Your task to perform on an android device: change text size in settings app Image 0: 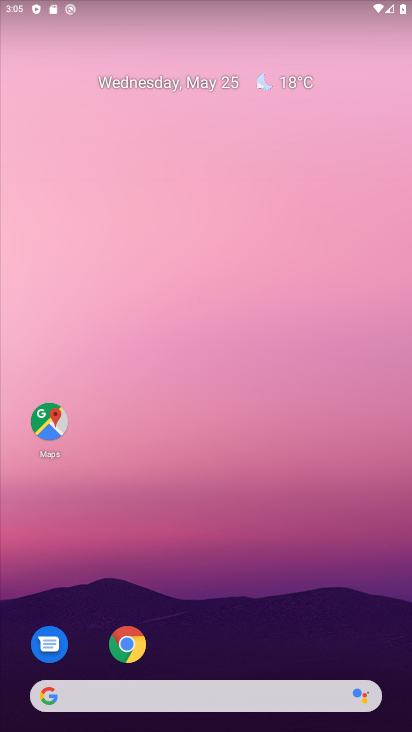
Step 0: drag from (271, 610) to (259, 113)
Your task to perform on an android device: change text size in settings app Image 1: 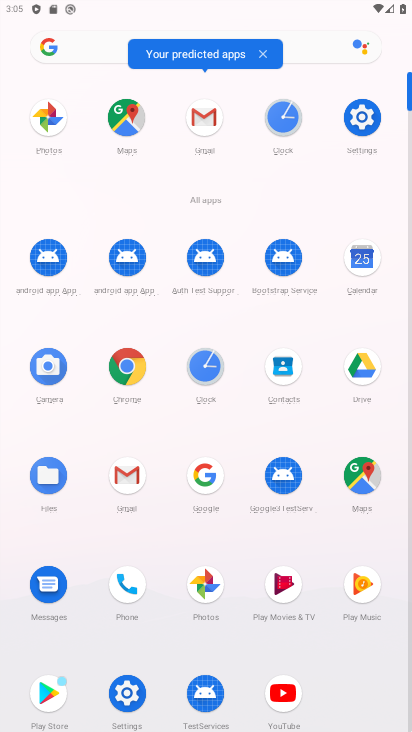
Step 1: click (127, 692)
Your task to perform on an android device: change text size in settings app Image 2: 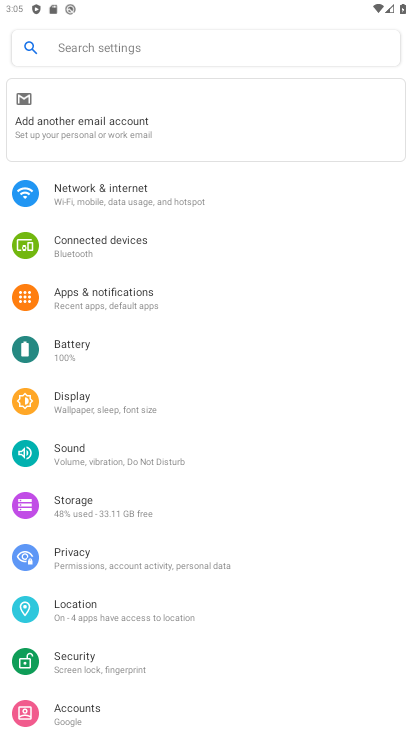
Step 2: drag from (120, 619) to (179, 512)
Your task to perform on an android device: change text size in settings app Image 3: 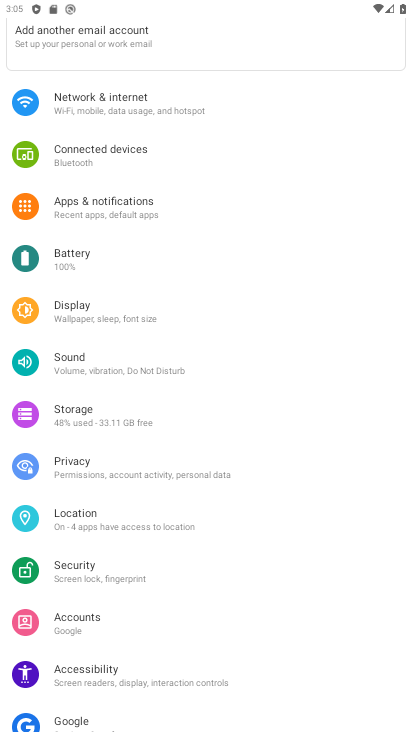
Step 3: drag from (104, 641) to (141, 581)
Your task to perform on an android device: change text size in settings app Image 4: 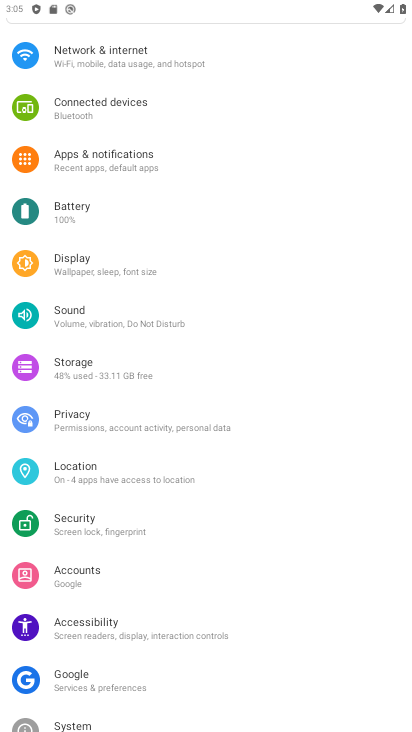
Step 4: click (83, 623)
Your task to perform on an android device: change text size in settings app Image 5: 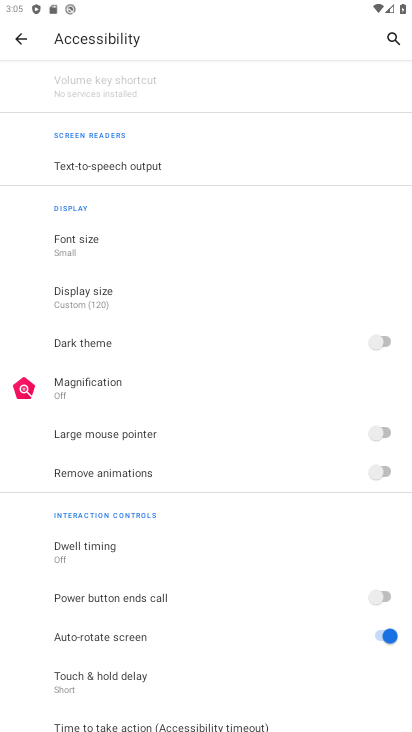
Step 5: click (94, 238)
Your task to perform on an android device: change text size in settings app Image 6: 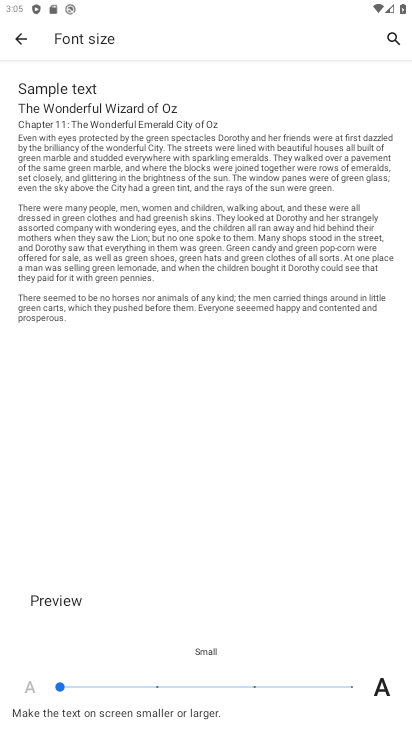
Step 6: click (161, 686)
Your task to perform on an android device: change text size in settings app Image 7: 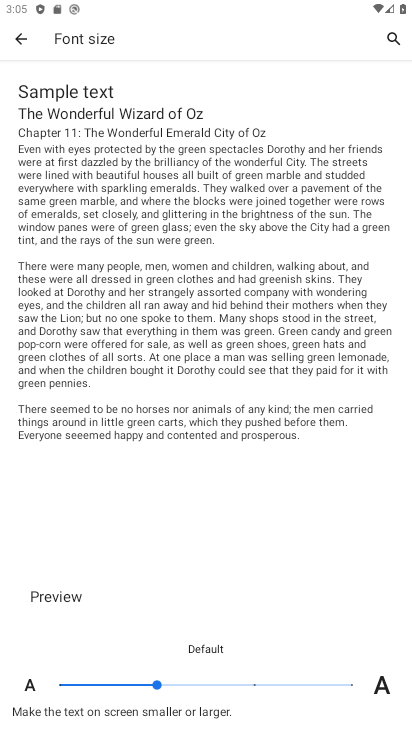
Step 7: task complete